Your task to perform on an android device: Open the web browser Image 0: 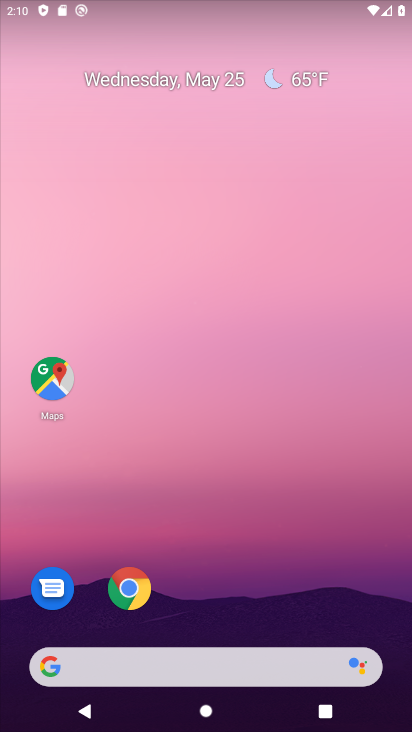
Step 0: click (132, 591)
Your task to perform on an android device: Open the web browser Image 1: 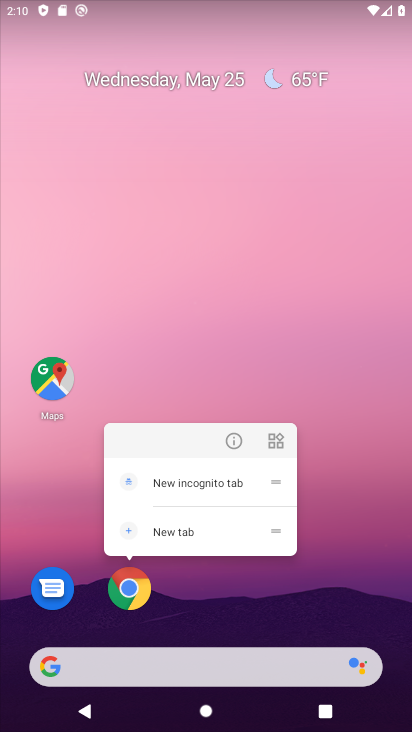
Step 1: click (134, 587)
Your task to perform on an android device: Open the web browser Image 2: 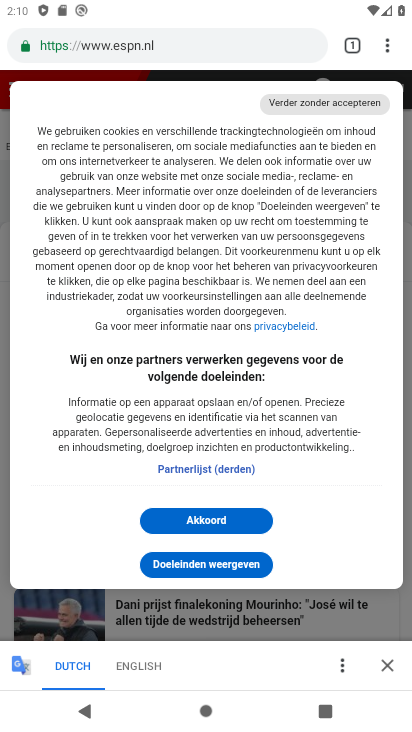
Step 2: click (138, 49)
Your task to perform on an android device: Open the web browser Image 3: 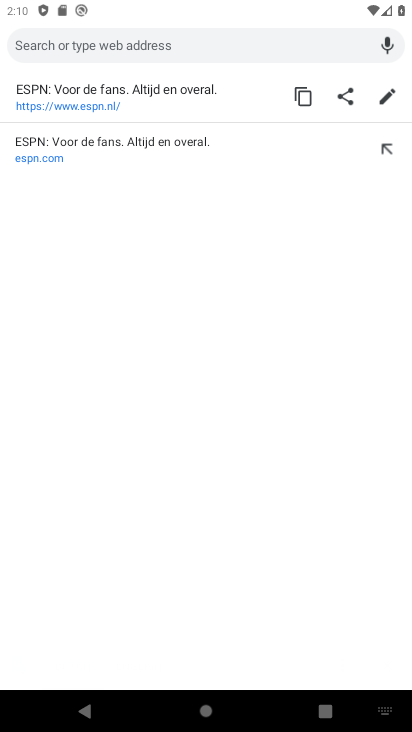
Step 3: task complete